Your task to perform on an android device: open app "Life360: Find Family & Friends" Image 0: 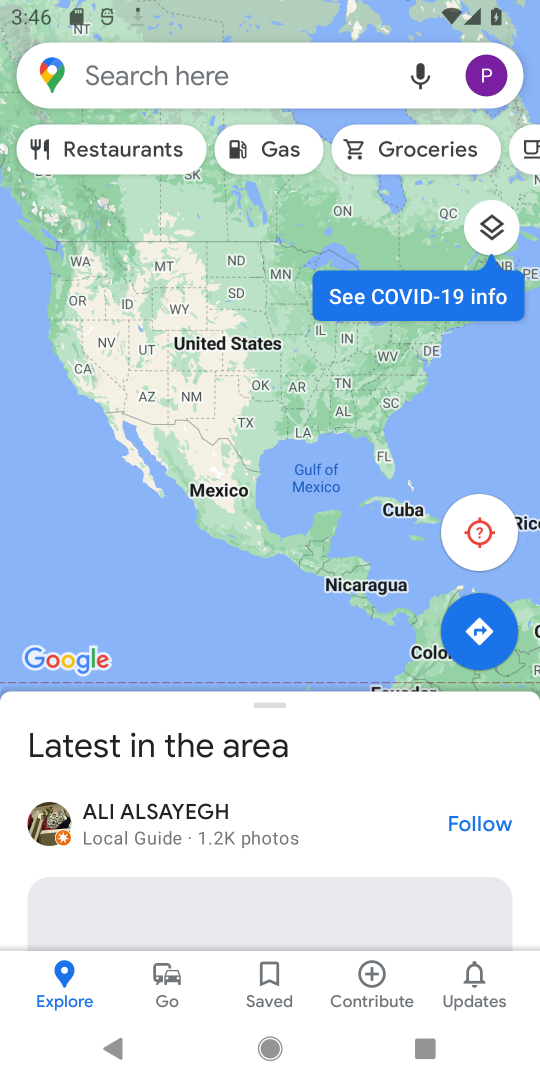
Step 0: press home button
Your task to perform on an android device: open app "Life360: Find Family & Friends" Image 1: 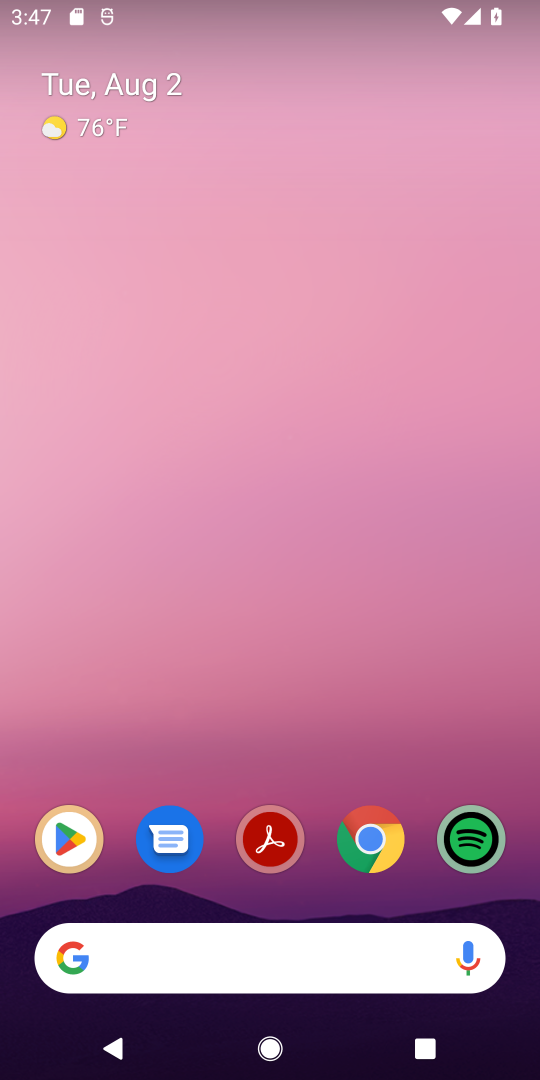
Step 1: drag from (216, 902) to (231, 198)
Your task to perform on an android device: open app "Life360: Find Family & Friends" Image 2: 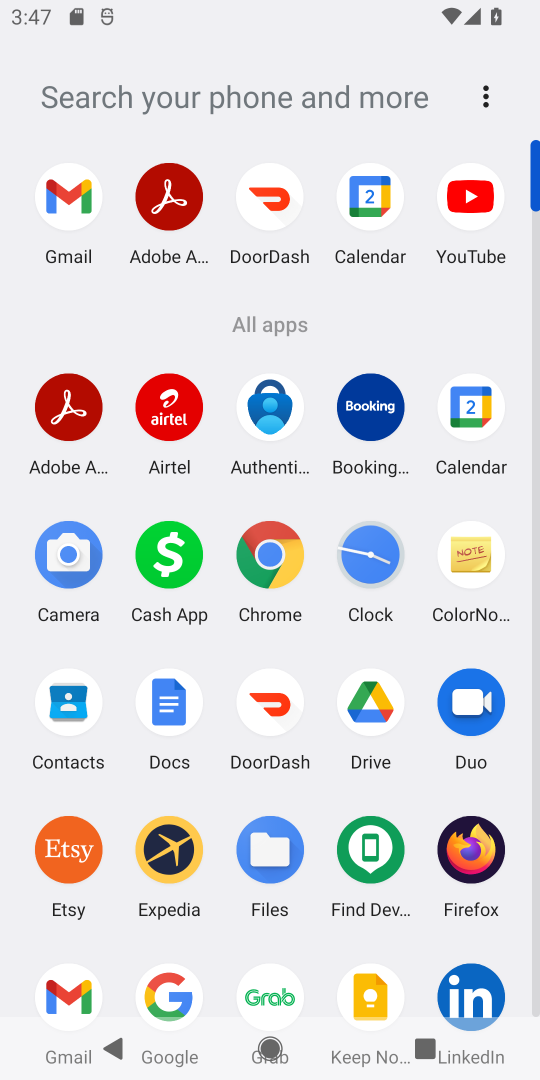
Step 2: click (295, 1036)
Your task to perform on an android device: open app "Life360: Find Family & Friends" Image 3: 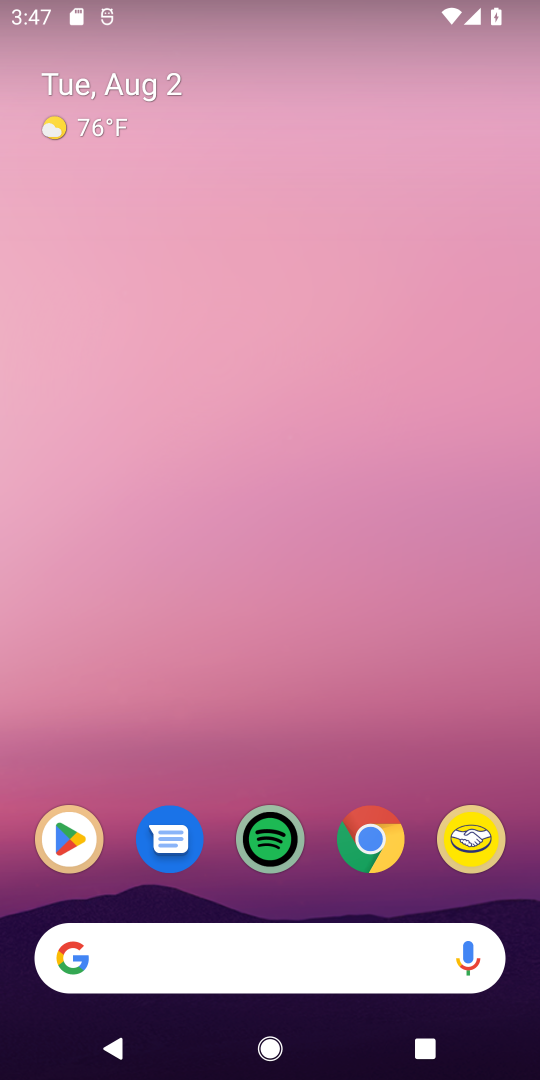
Step 3: click (69, 853)
Your task to perform on an android device: open app "Life360: Find Family & Friends" Image 4: 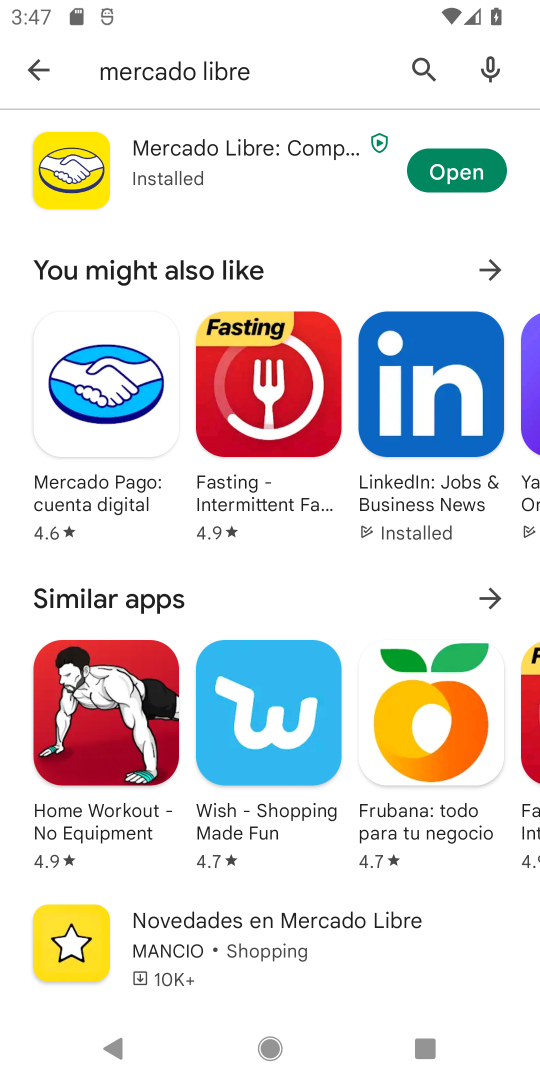
Step 4: click (415, 72)
Your task to perform on an android device: open app "Life360: Find Family & Friends" Image 5: 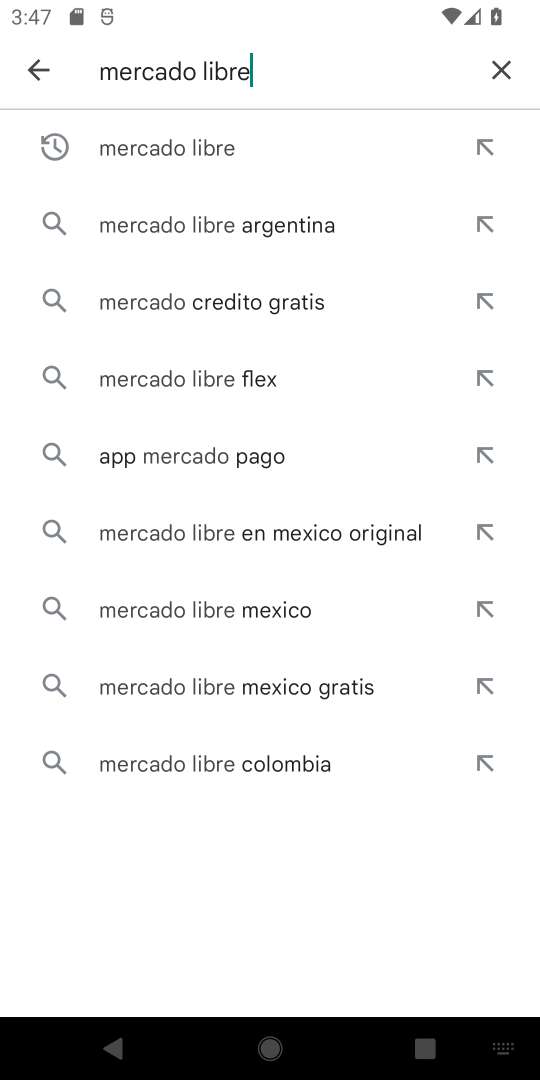
Step 5: click (495, 86)
Your task to perform on an android device: open app "Life360: Find Family & Friends" Image 6: 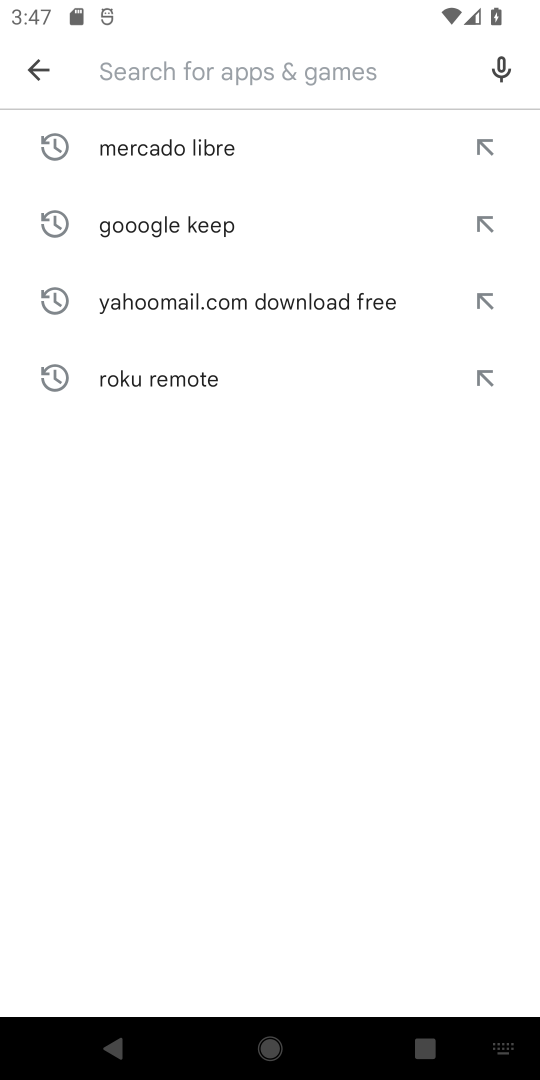
Step 6: type "life360"
Your task to perform on an android device: open app "Life360: Find Family & Friends" Image 7: 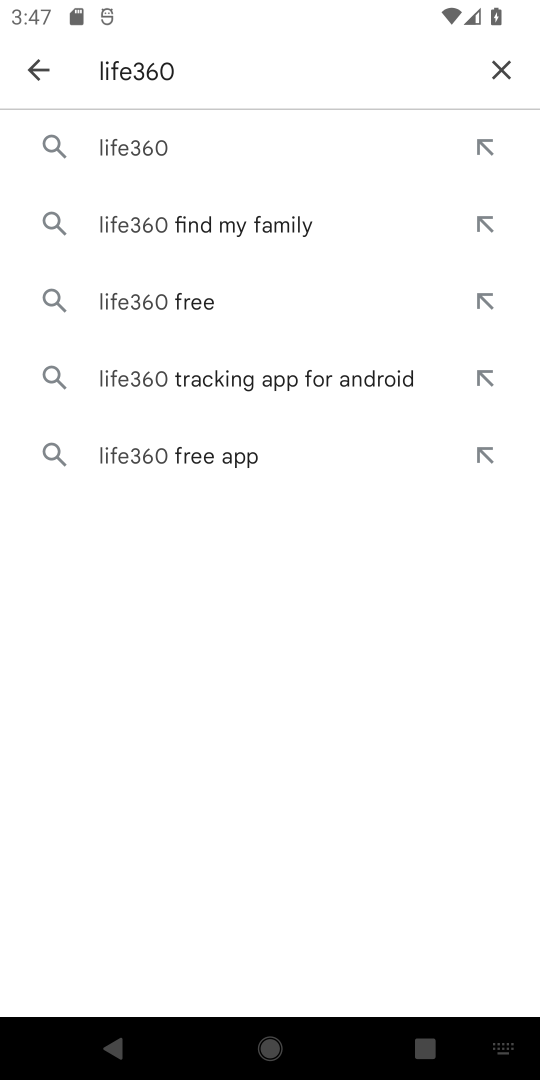
Step 7: click (202, 136)
Your task to perform on an android device: open app "Life360: Find Family & Friends" Image 8: 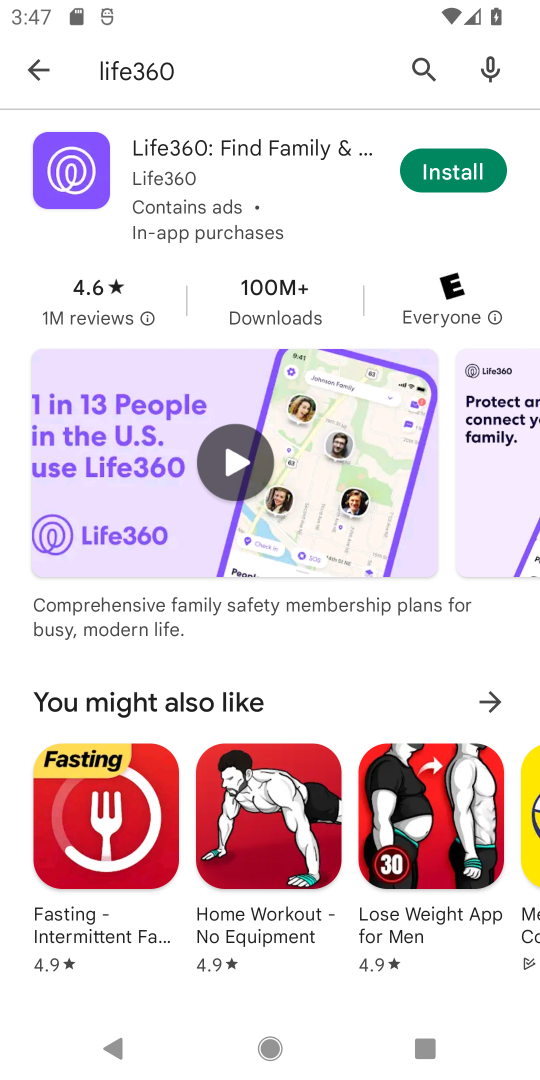
Step 8: click (420, 176)
Your task to perform on an android device: open app "Life360: Find Family & Friends" Image 9: 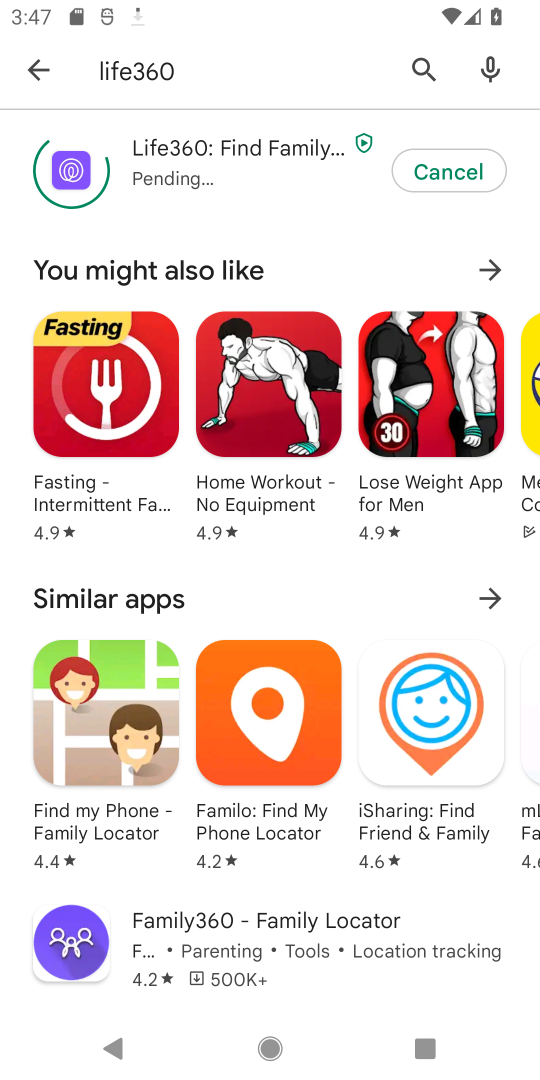
Step 9: task complete